Your task to perform on an android device: Go to CNN.com Image 0: 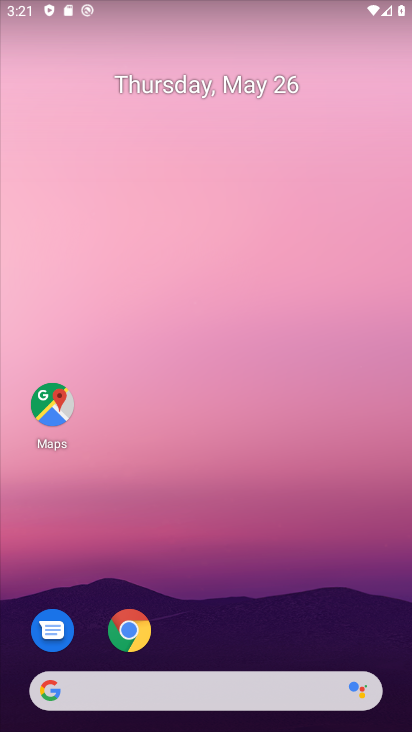
Step 0: click (127, 627)
Your task to perform on an android device: Go to CNN.com Image 1: 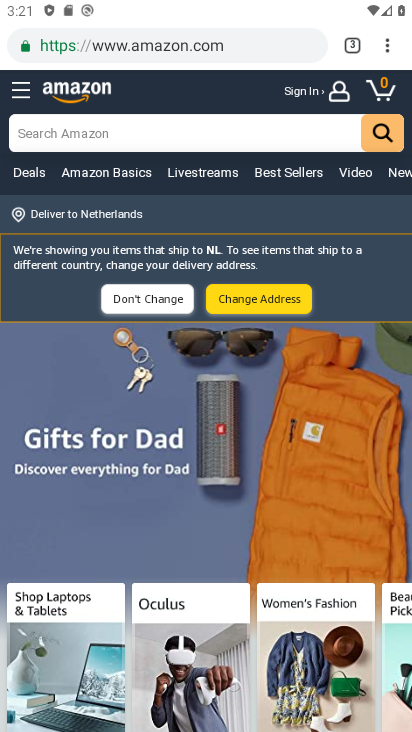
Step 1: click (262, 42)
Your task to perform on an android device: Go to CNN.com Image 2: 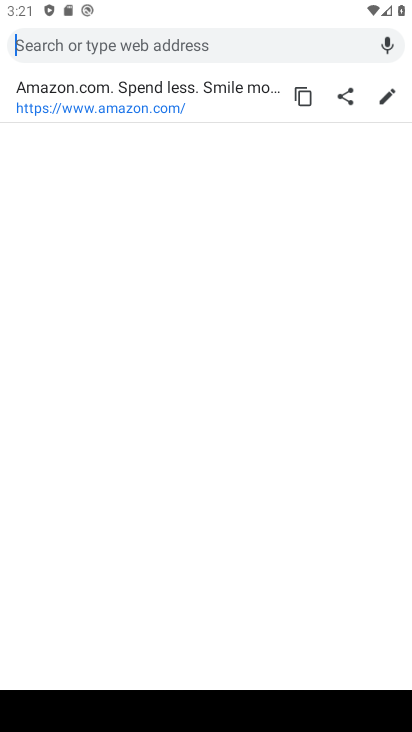
Step 2: type "CNN.com"
Your task to perform on an android device: Go to CNN.com Image 3: 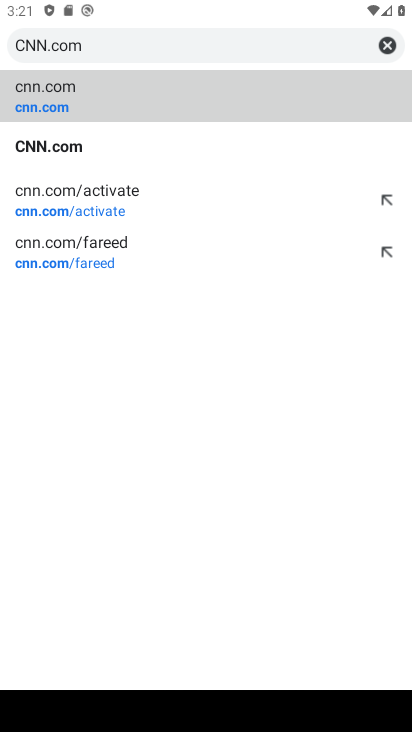
Step 3: click (50, 147)
Your task to perform on an android device: Go to CNN.com Image 4: 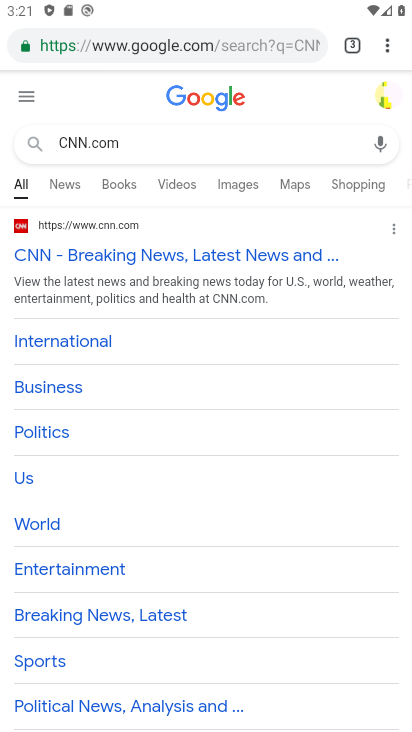
Step 4: click (135, 256)
Your task to perform on an android device: Go to CNN.com Image 5: 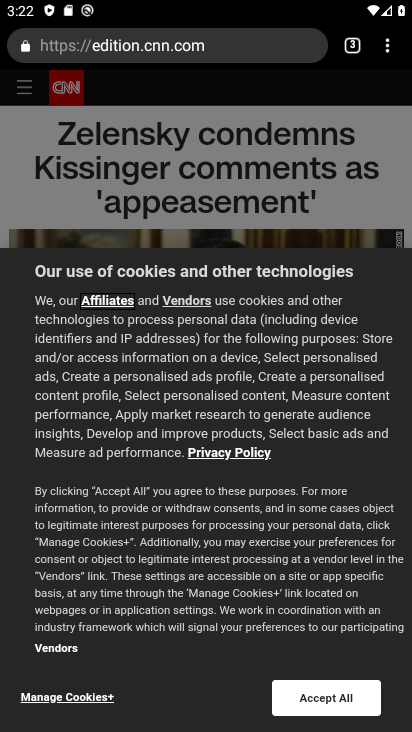
Step 5: click (313, 701)
Your task to perform on an android device: Go to CNN.com Image 6: 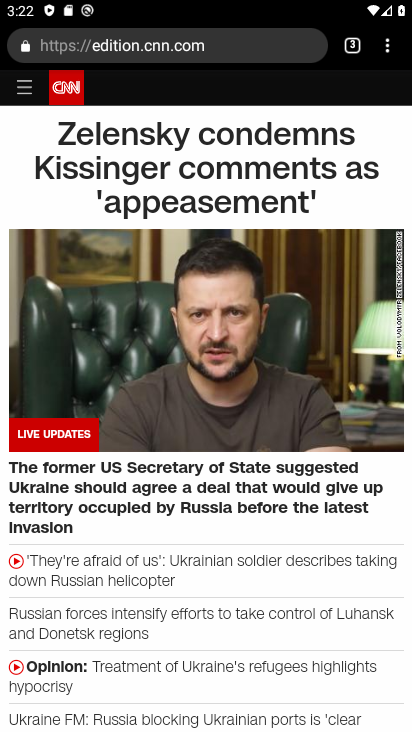
Step 6: task complete